Your task to perform on an android device: open the mobile data screen to see how much data has been used Image 0: 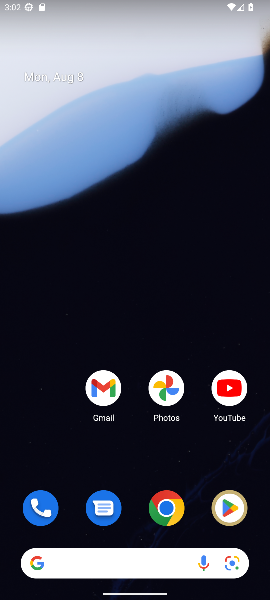
Step 0: drag from (41, 470) to (59, 6)
Your task to perform on an android device: open the mobile data screen to see how much data has been used Image 1: 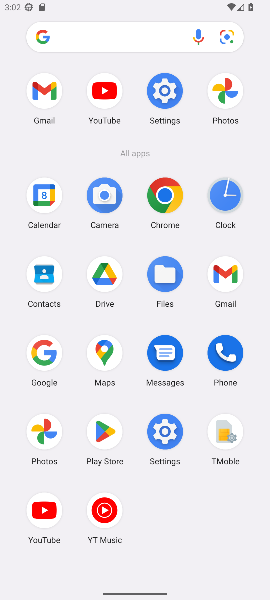
Step 1: click (168, 94)
Your task to perform on an android device: open the mobile data screen to see how much data has been used Image 2: 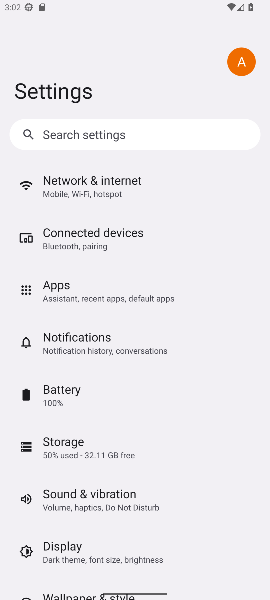
Step 2: click (86, 173)
Your task to perform on an android device: open the mobile data screen to see how much data has been used Image 3: 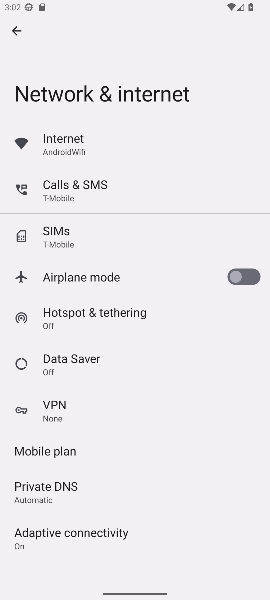
Step 3: click (66, 139)
Your task to perform on an android device: open the mobile data screen to see how much data has been used Image 4: 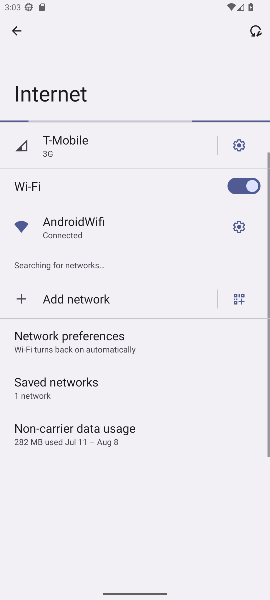
Step 4: click (85, 433)
Your task to perform on an android device: open the mobile data screen to see how much data has been used Image 5: 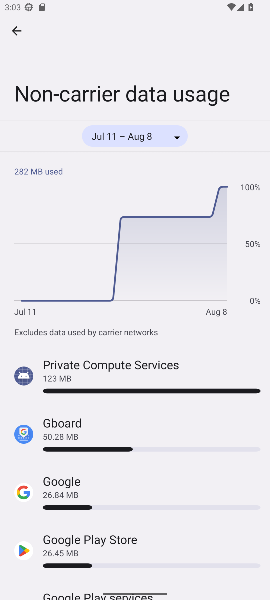
Step 5: task complete